Your task to perform on an android device: add a contact in the contacts app Image 0: 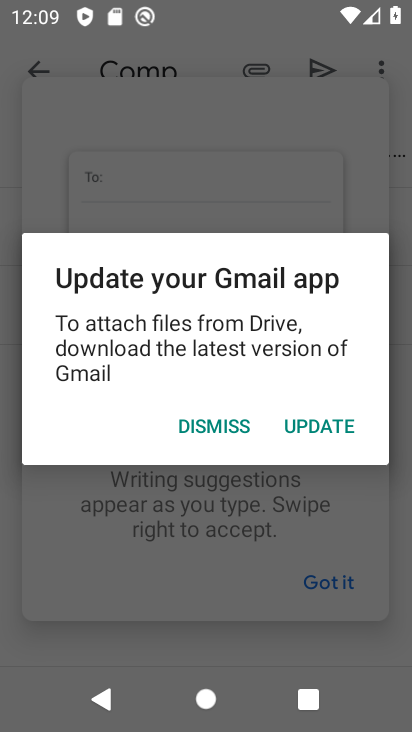
Step 0: press home button
Your task to perform on an android device: add a contact in the contacts app Image 1: 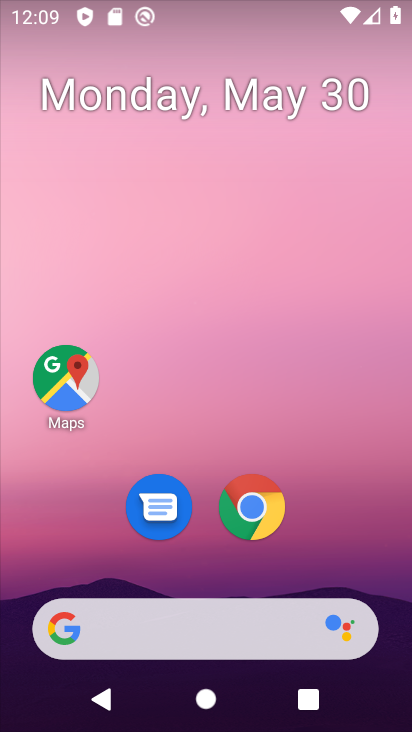
Step 1: drag from (346, 529) to (283, 161)
Your task to perform on an android device: add a contact in the contacts app Image 2: 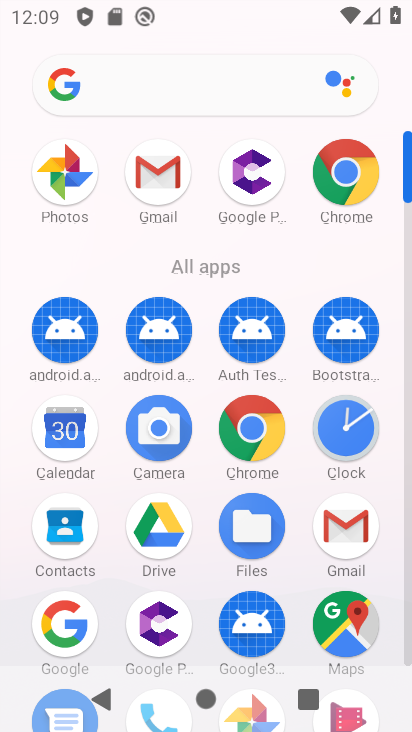
Step 2: drag from (181, 554) to (200, 319)
Your task to perform on an android device: add a contact in the contacts app Image 3: 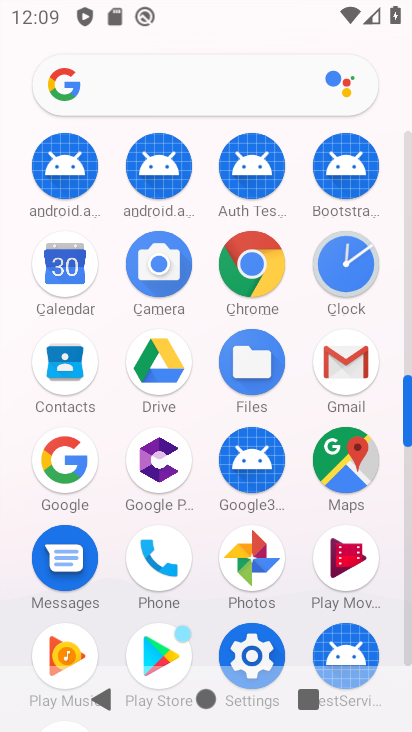
Step 3: click (161, 557)
Your task to perform on an android device: add a contact in the contacts app Image 4: 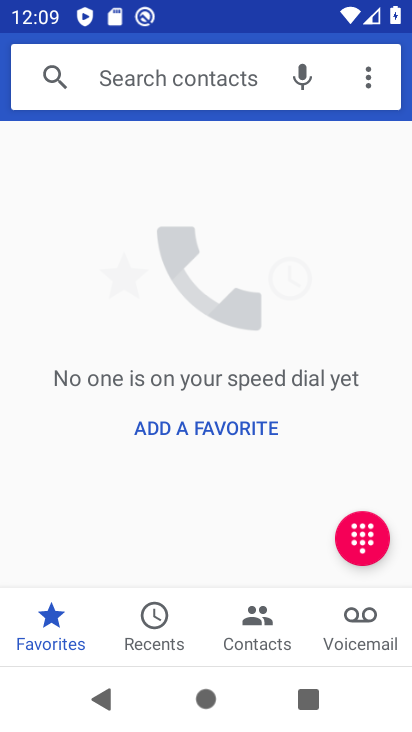
Step 4: click (211, 421)
Your task to perform on an android device: add a contact in the contacts app Image 5: 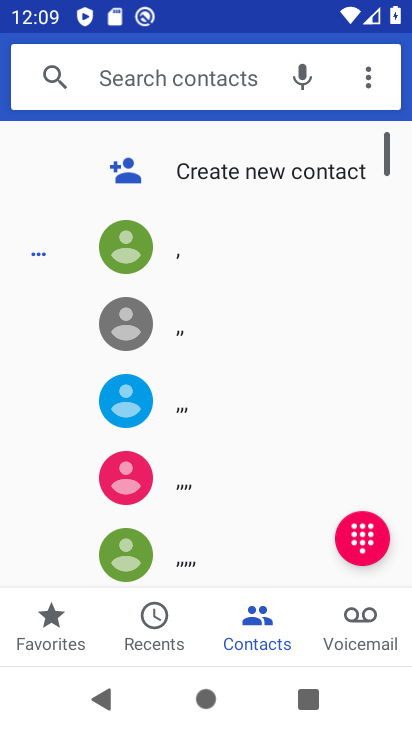
Step 5: click (221, 172)
Your task to perform on an android device: add a contact in the contacts app Image 6: 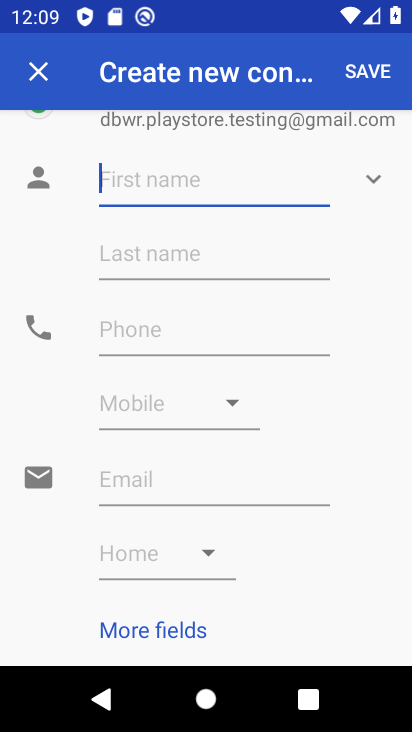
Step 6: click (175, 181)
Your task to perform on an android device: add a contact in the contacts app Image 7: 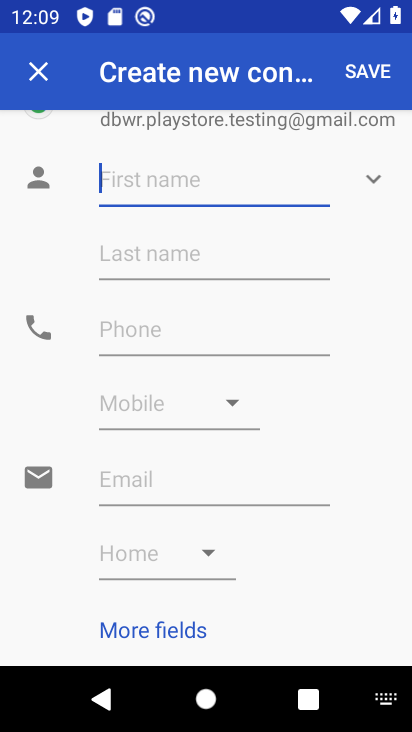
Step 7: type "gfgffgfggfgfgfgfgfgfgfgfg"
Your task to perform on an android device: add a contact in the contacts app Image 8: 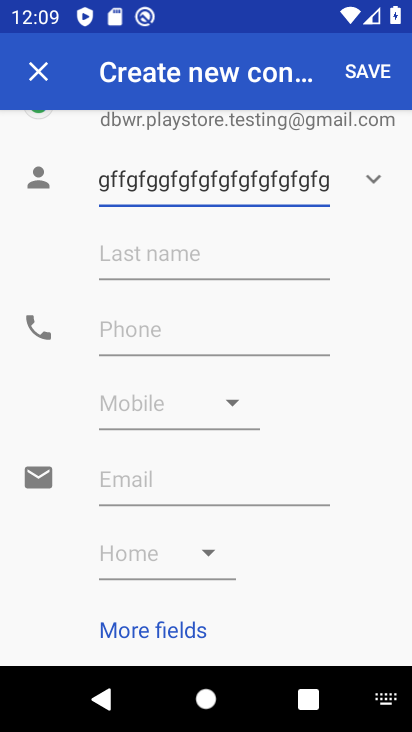
Step 8: click (248, 321)
Your task to perform on an android device: add a contact in the contacts app Image 9: 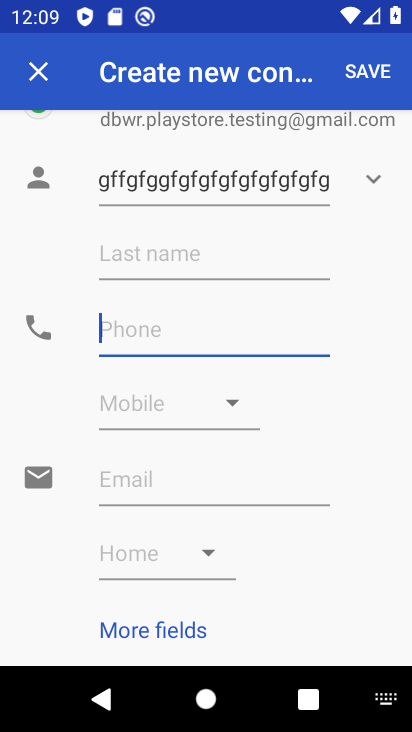
Step 9: type "3456789"
Your task to perform on an android device: add a contact in the contacts app Image 10: 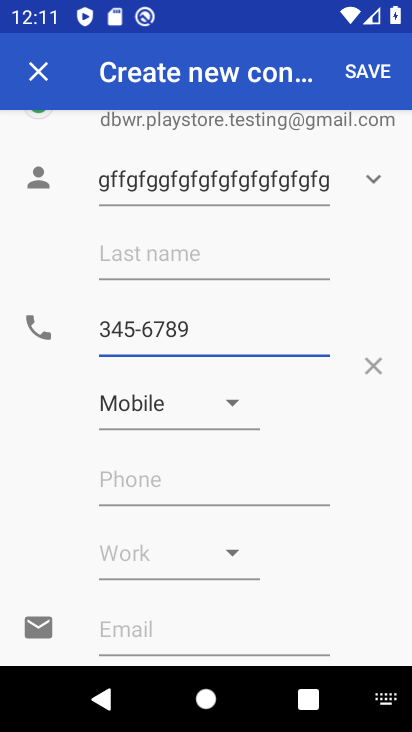
Step 10: click (372, 62)
Your task to perform on an android device: add a contact in the contacts app Image 11: 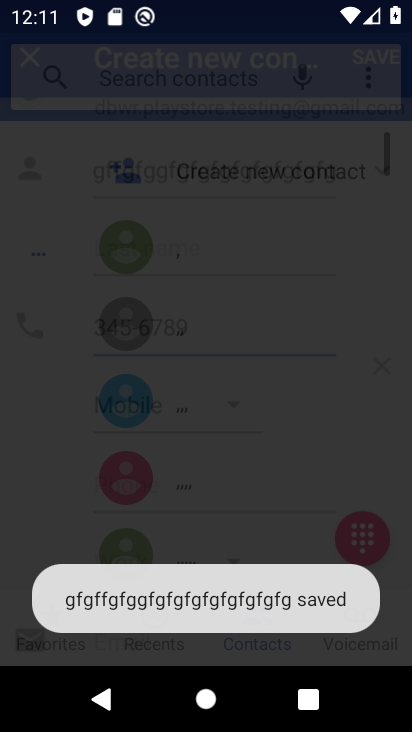
Step 11: task complete